Your task to perform on an android device: allow notifications from all sites in the chrome app Image 0: 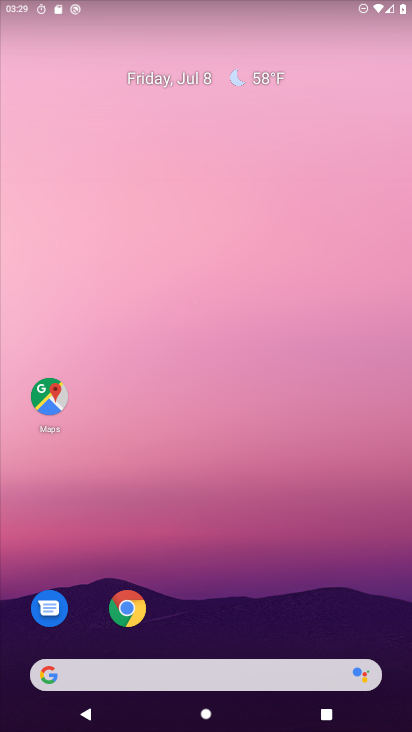
Step 0: click (128, 606)
Your task to perform on an android device: allow notifications from all sites in the chrome app Image 1: 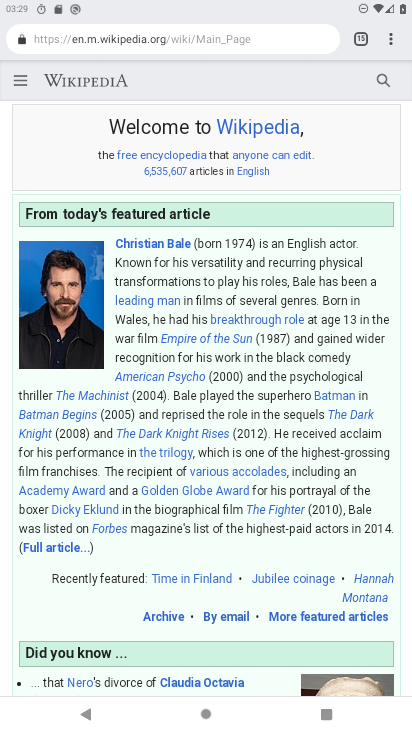
Step 1: click (391, 38)
Your task to perform on an android device: allow notifications from all sites in the chrome app Image 2: 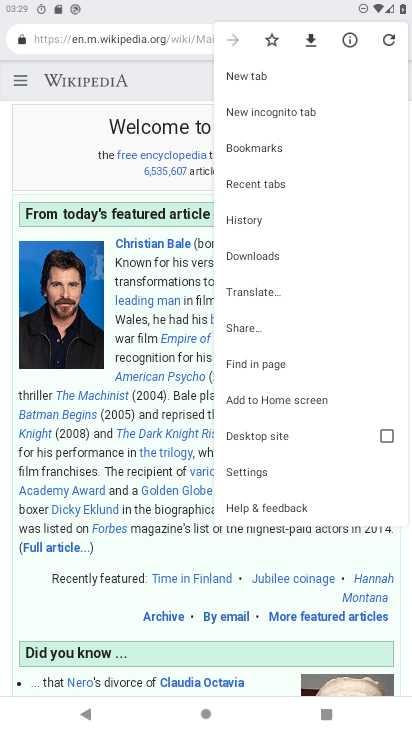
Step 2: click (252, 474)
Your task to perform on an android device: allow notifications from all sites in the chrome app Image 3: 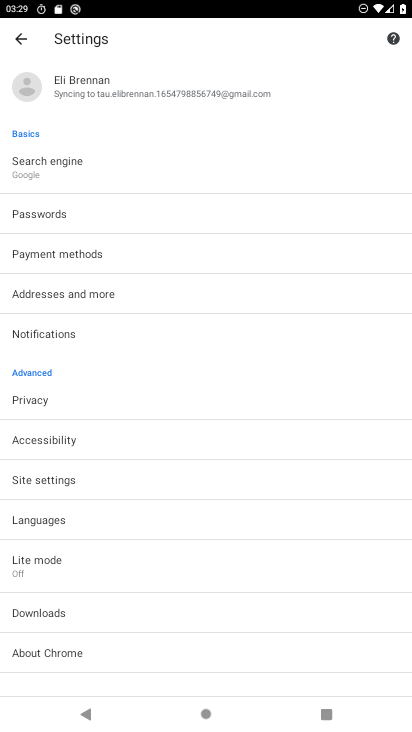
Step 3: click (46, 475)
Your task to perform on an android device: allow notifications from all sites in the chrome app Image 4: 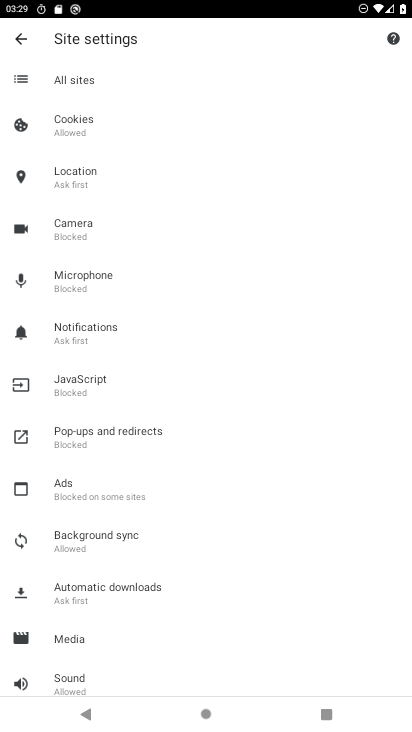
Step 4: click (92, 327)
Your task to perform on an android device: allow notifications from all sites in the chrome app Image 5: 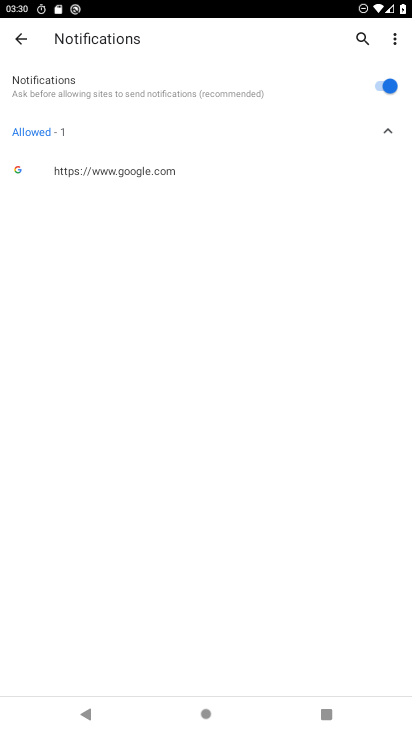
Step 5: task complete